Your task to perform on an android device: Open accessibility settings Image 0: 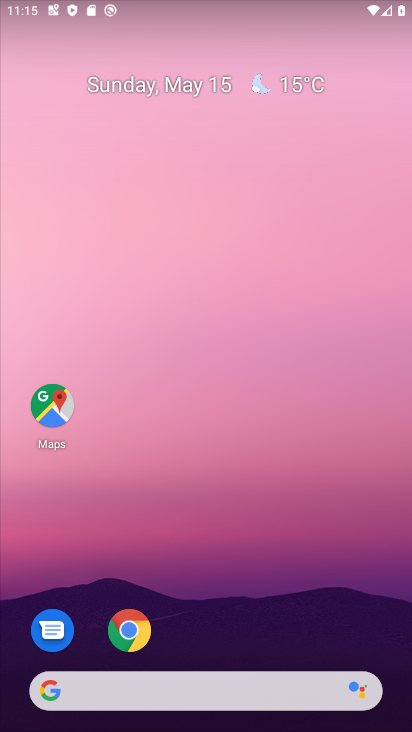
Step 0: drag from (199, 705) to (203, 0)
Your task to perform on an android device: Open accessibility settings Image 1: 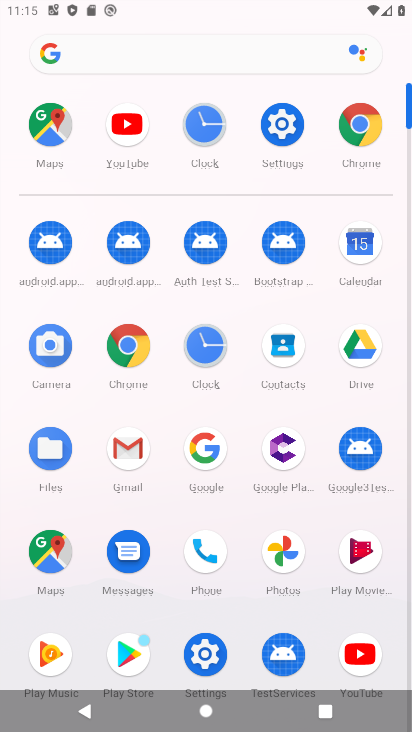
Step 1: click (277, 124)
Your task to perform on an android device: Open accessibility settings Image 2: 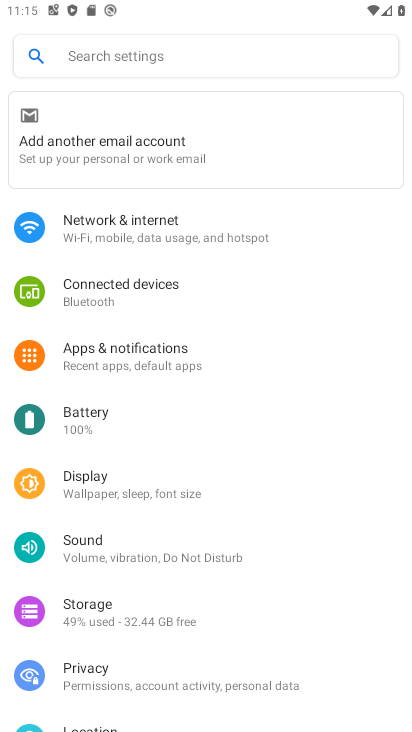
Step 2: drag from (142, 669) to (136, 159)
Your task to perform on an android device: Open accessibility settings Image 3: 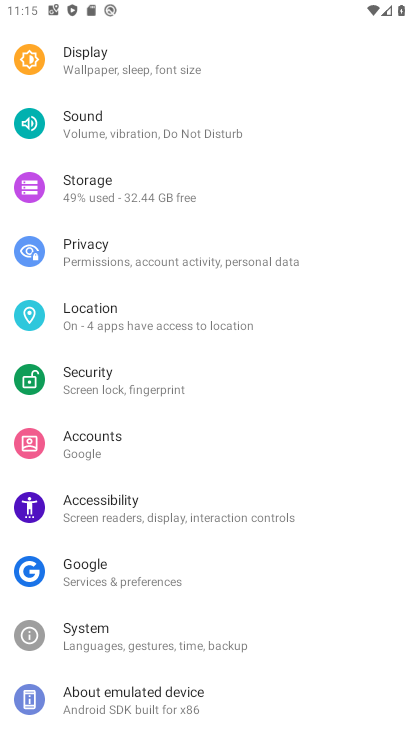
Step 3: drag from (172, 665) to (163, 499)
Your task to perform on an android device: Open accessibility settings Image 4: 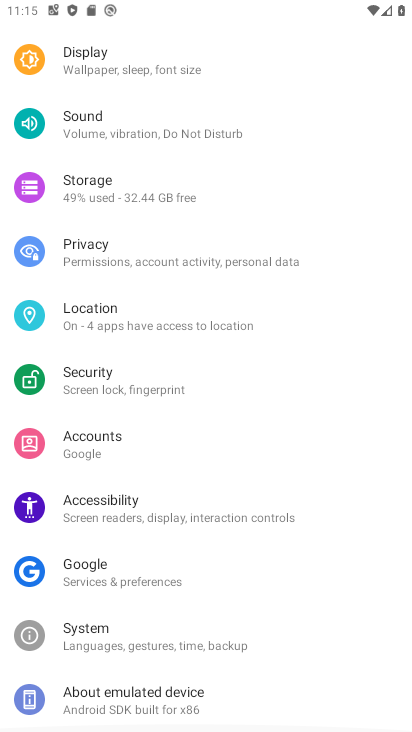
Step 4: click (110, 502)
Your task to perform on an android device: Open accessibility settings Image 5: 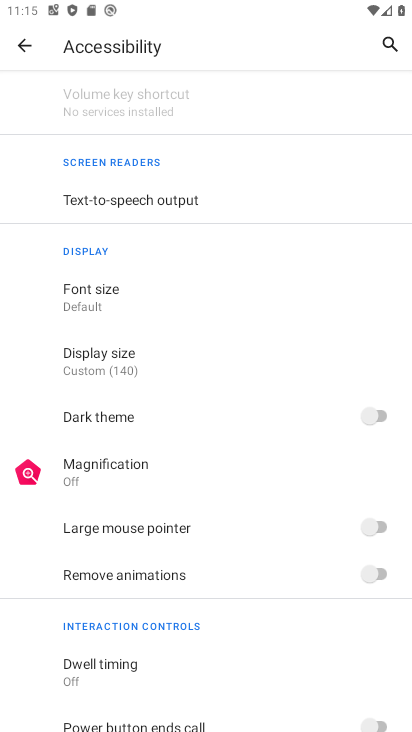
Step 5: task complete